Your task to perform on an android device: turn smart compose on in the gmail app Image 0: 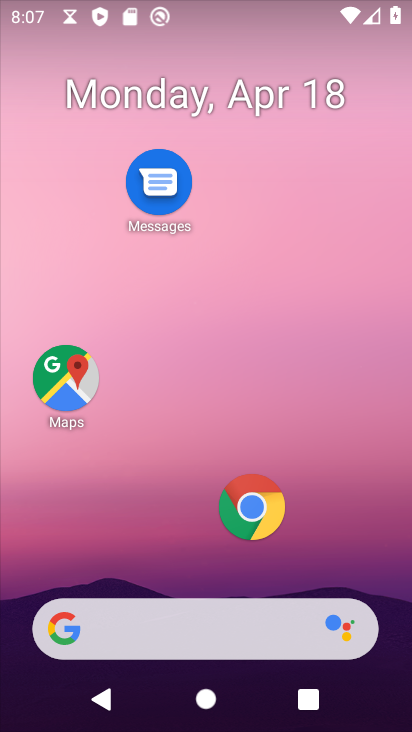
Step 0: drag from (245, 578) to (238, 261)
Your task to perform on an android device: turn smart compose on in the gmail app Image 1: 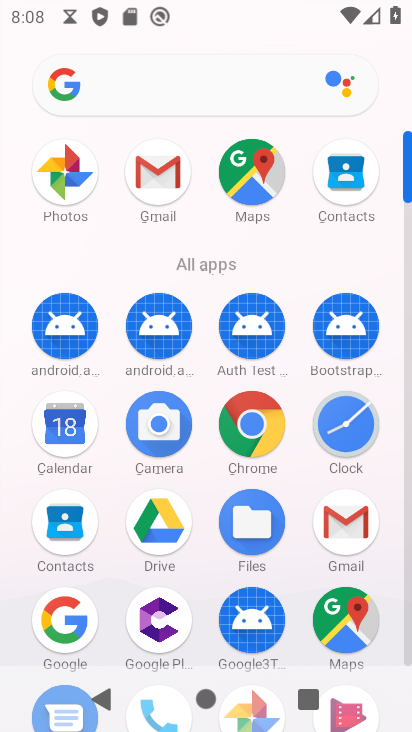
Step 1: click (335, 528)
Your task to perform on an android device: turn smart compose on in the gmail app Image 2: 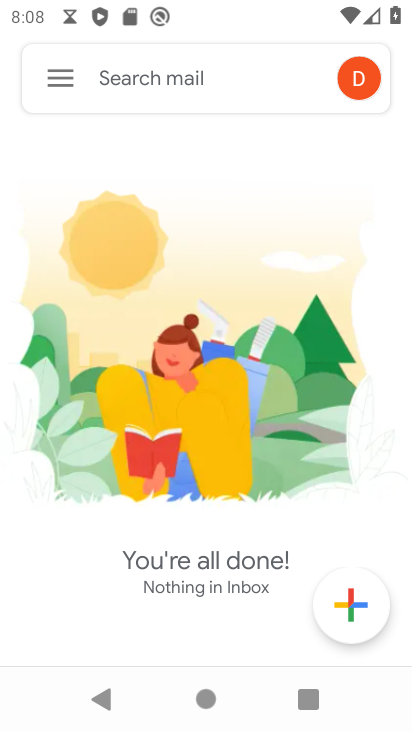
Step 2: click (58, 80)
Your task to perform on an android device: turn smart compose on in the gmail app Image 3: 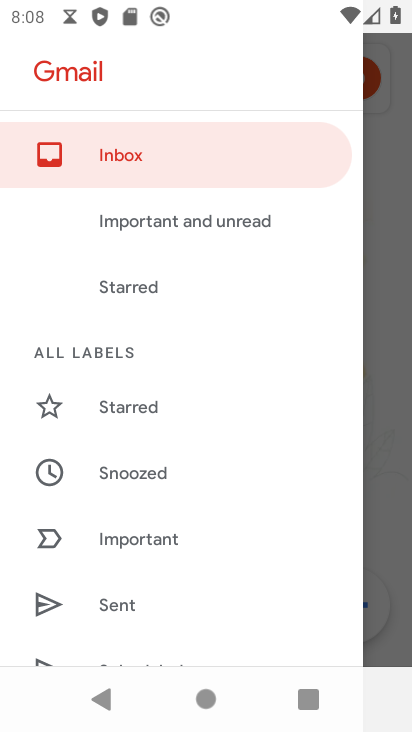
Step 3: drag from (164, 627) to (169, 275)
Your task to perform on an android device: turn smart compose on in the gmail app Image 4: 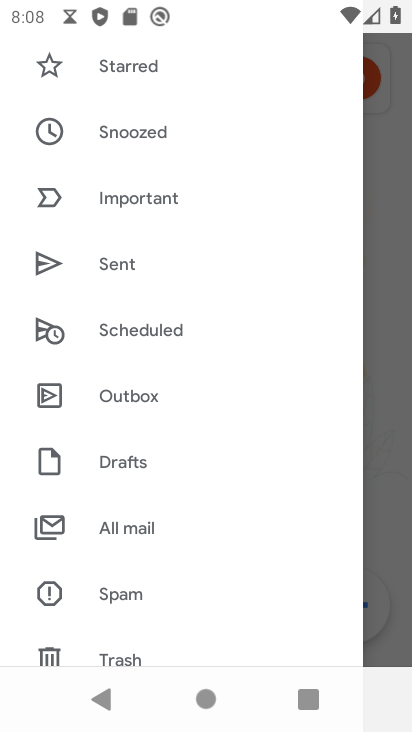
Step 4: drag from (154, 641) to (194, 261)
Your task to perform on an android device: turn smart compose on in the gmail app Image 5: 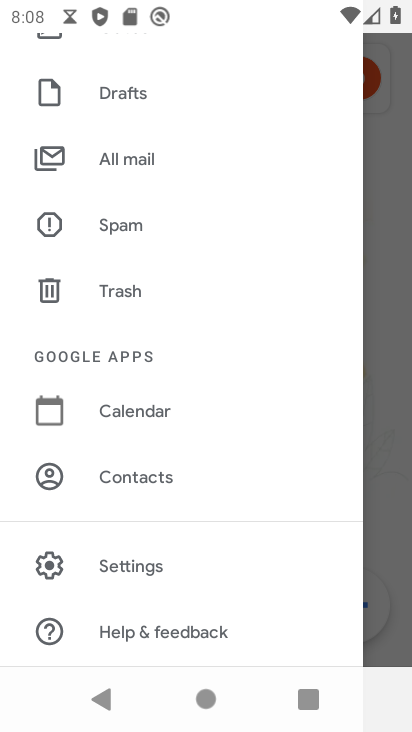
Step 5: click (136, 564)
Your task to perform on an android device: turn smart compose on in the gmail app Image 6: 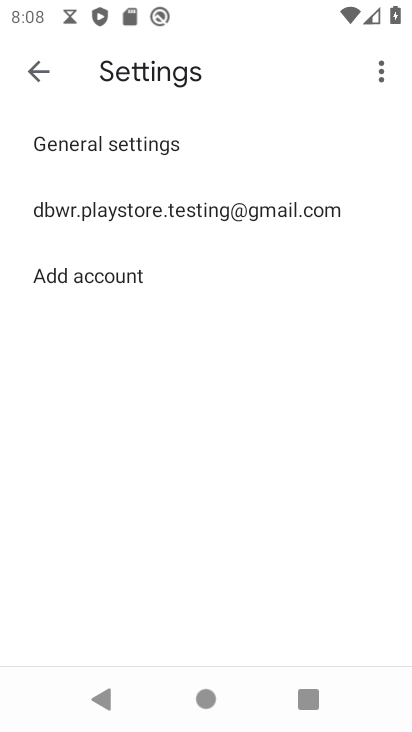
Step 6: click (152, 212)
Your task to perform on an android device: turn smart compose on in the gmail app Image 7: 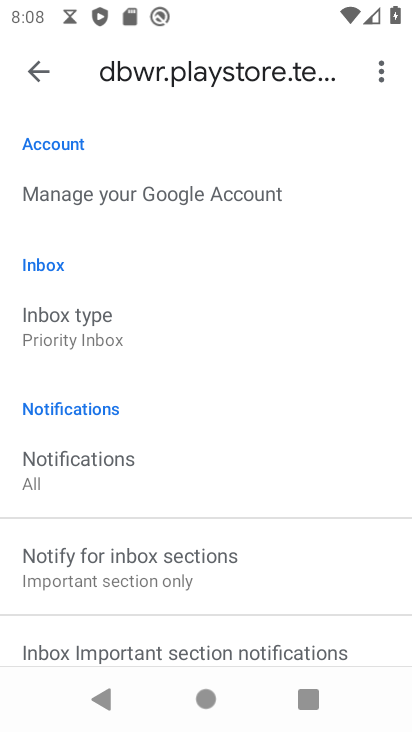
Step 7: task complete